Your task to perform on an android device: turn on showing notifications on the lock screen Image 0: 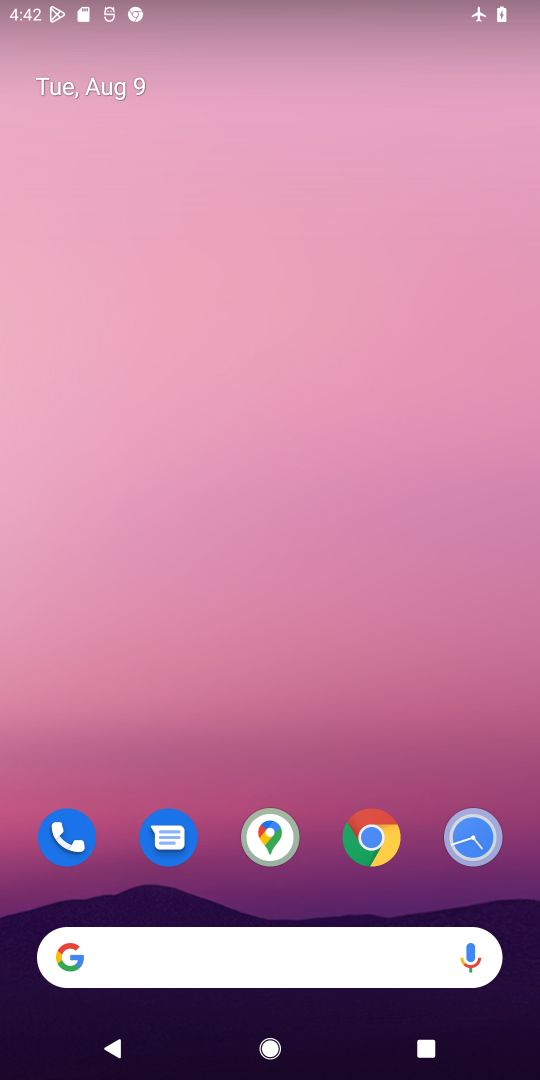
Step 0: drag from (323, 868) to (331, 213)
Your task to perform on an android device: turn on showing notifications on the lock screen Image 1: 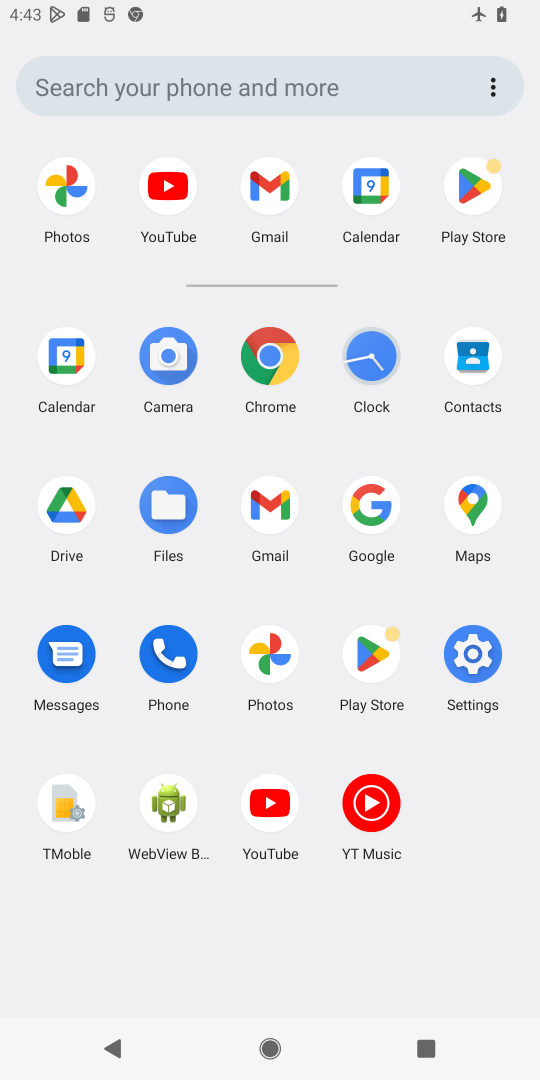
Step 1: click (472, 649)
Your task to perform on an android device: turn on showing notifications on the lock screen Image 2: 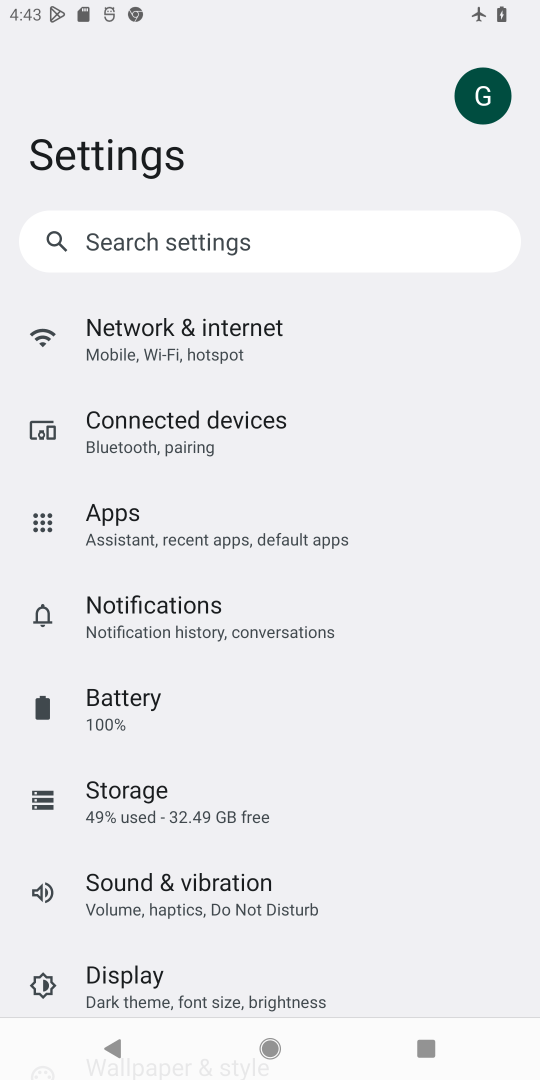
Step 2: click (195, 604)
Your task to perform on an android device: turn on showing notifications on the lock screen Image 3: 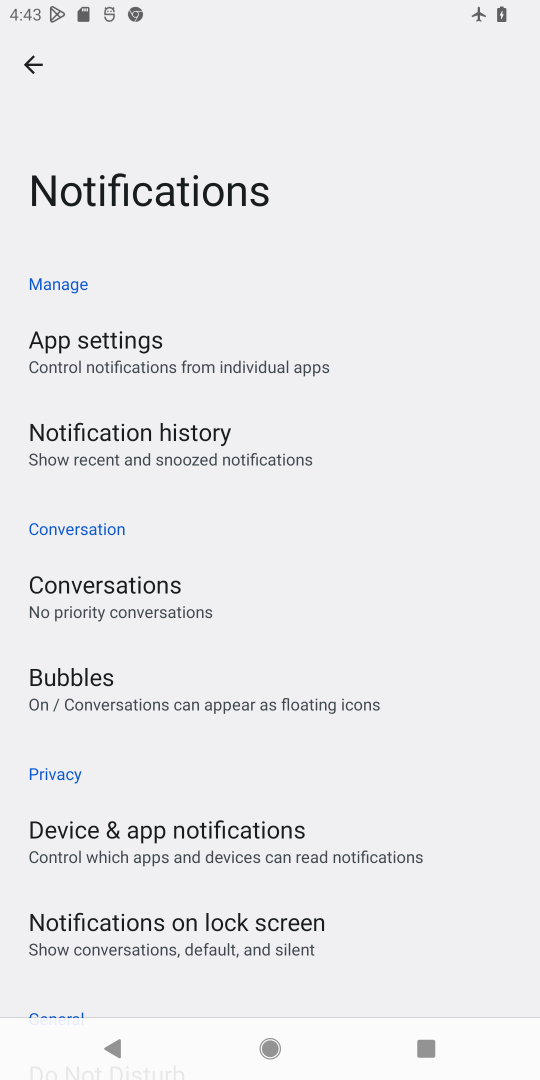
Step 3: click (236, 920)
Your task to perform on an android device: turn on showing notifications on the lock screen Image 4: 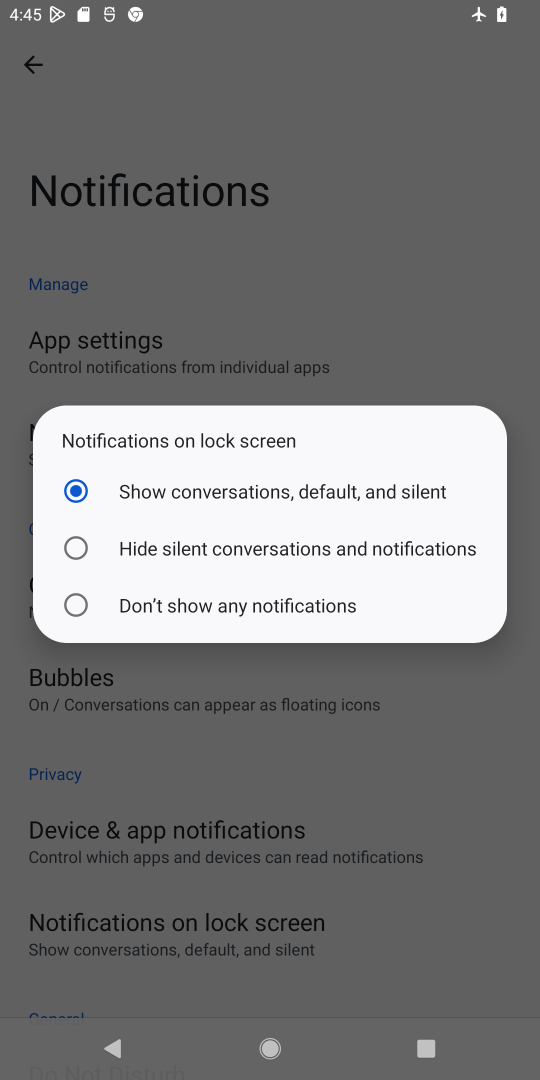
Step 4: task complete